Your task to perform on an android device: open a bookmark in the chrome app Image 0: 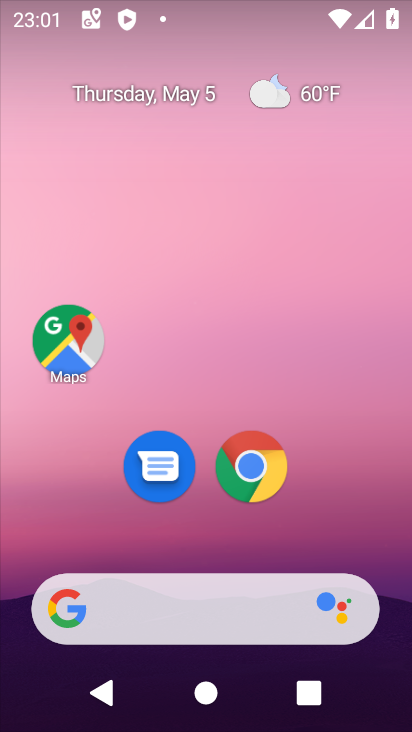
Step 0: click (239, 498)
Your task to perform on an android device: open a bookmark in the chrome app Image 1: 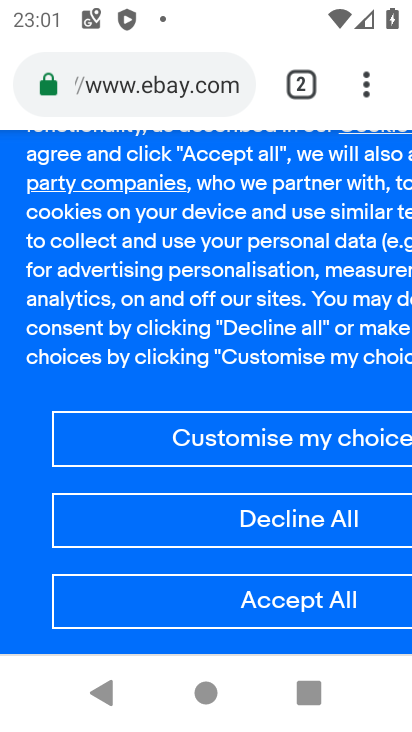
Step 1: click (372, 89)
Your task to perform on an android device: open a bookmark in the chrome app Image 2: 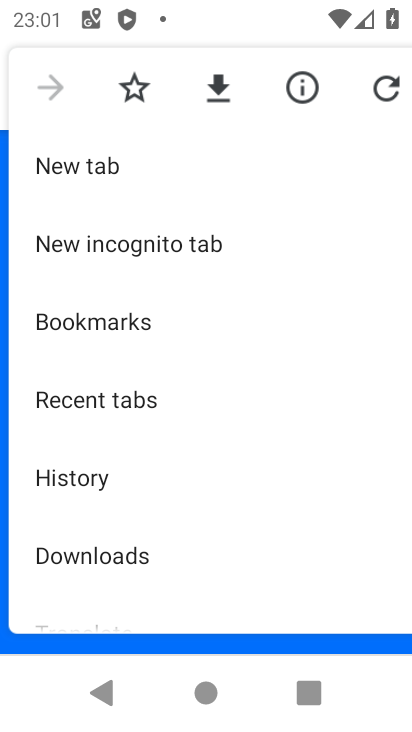
Step 2: click (97, 319)
Your task to perform on an android device: open a bookmark in the chrome app Image 3: 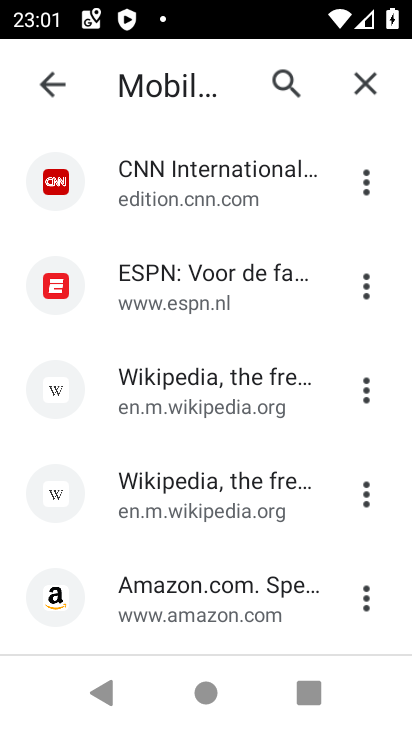
Step 3: task complete